Your task to perform on an android device: search for starred emails in the gmail app Image 0: 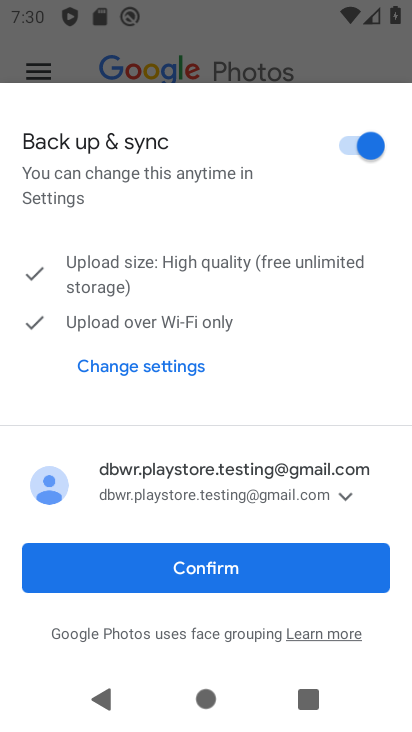
Step 0: press home button
Your task to perform on an android device: search for starred emails in the gmail app Image 1: 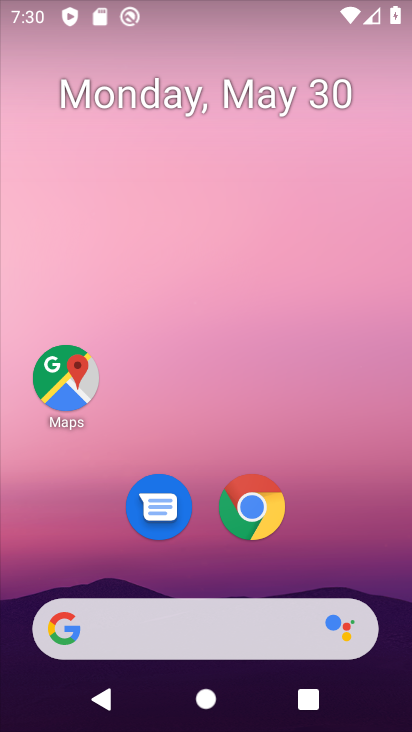
Step 1: drag from (397, 526) to (330, 187)
Your task to perform on an android device: search for starred emails in the gmail app Image 2: 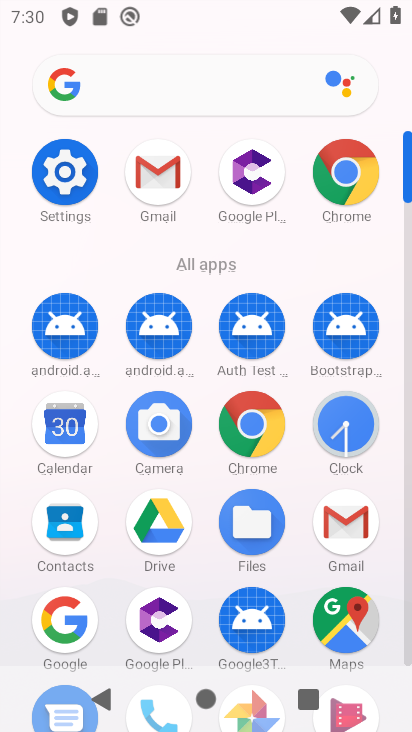
Step 2: click (346, 510)
Your task to perform on an android device: search for starred emails in the gmail app Image 3: 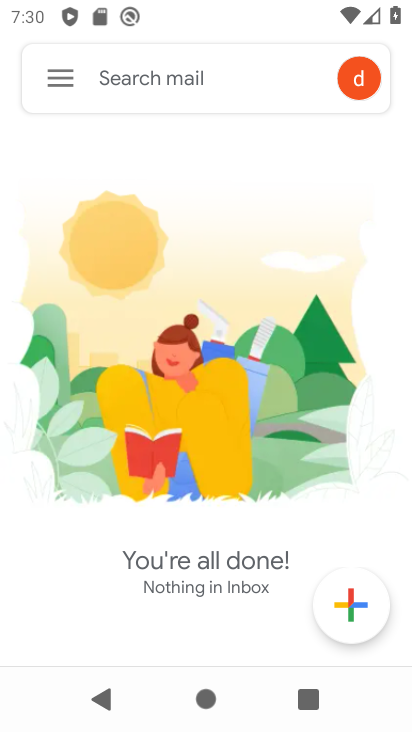
Step 3: click (39, 86)
Your task to perform on an android device: search for starred emails in the gmail app Image 4: 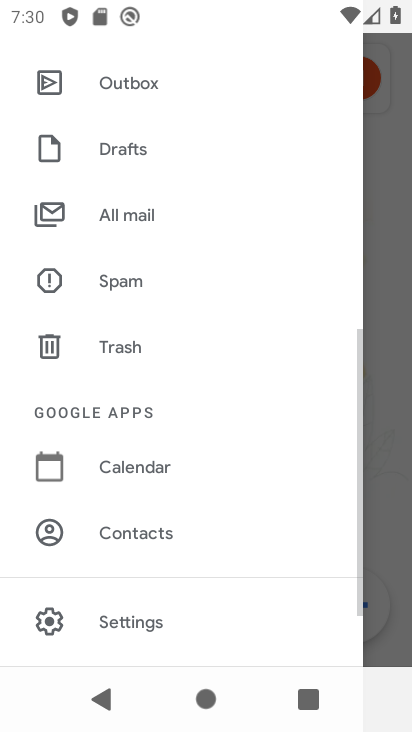
Step 4: drag from (143, 117) to (201, 568)
Your task to perform on an android device: search for starred emails in the gmail app Image 5: 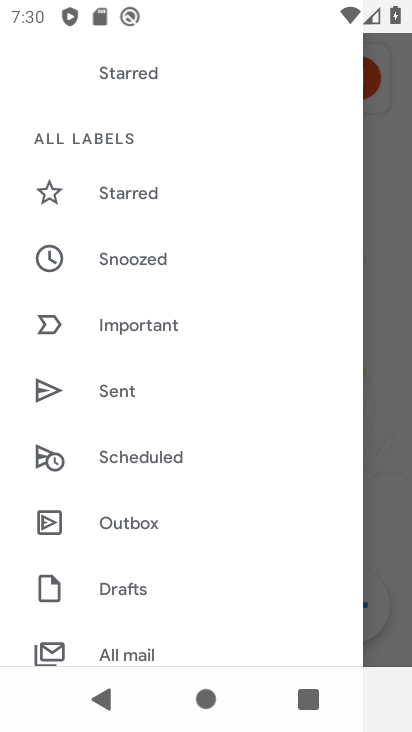
Step 5: click (170, 192)
Your task to perform on an android device: search for starred emails in the gmail app Image 6: 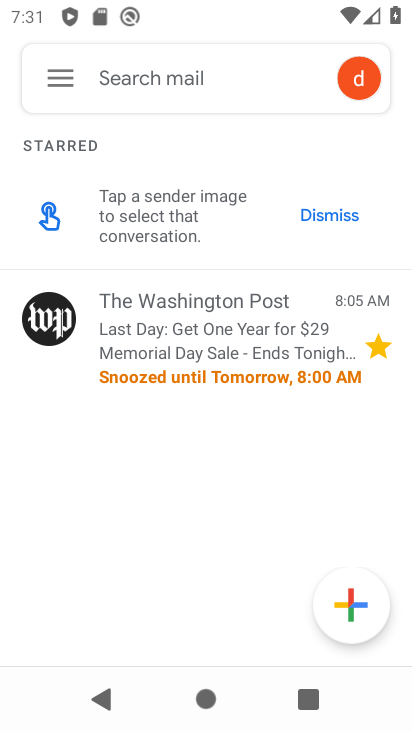
Step 6: task complete